Your task to perform on an android device: visit the assistant section in the google photos Image 0: 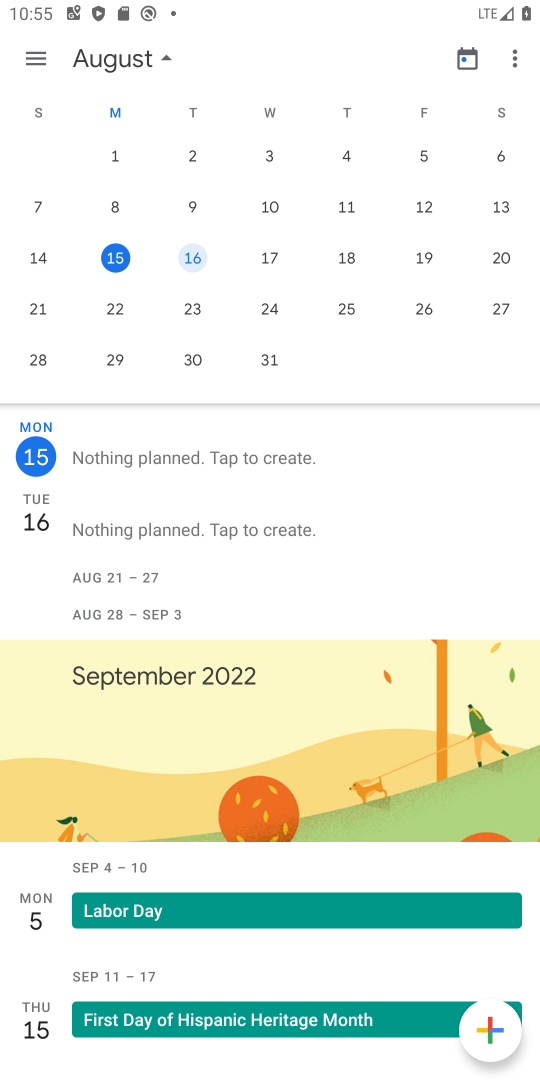
Step 0: press home button
Your task to perform on an android device: visit the assistant section in the google photos Image 1: 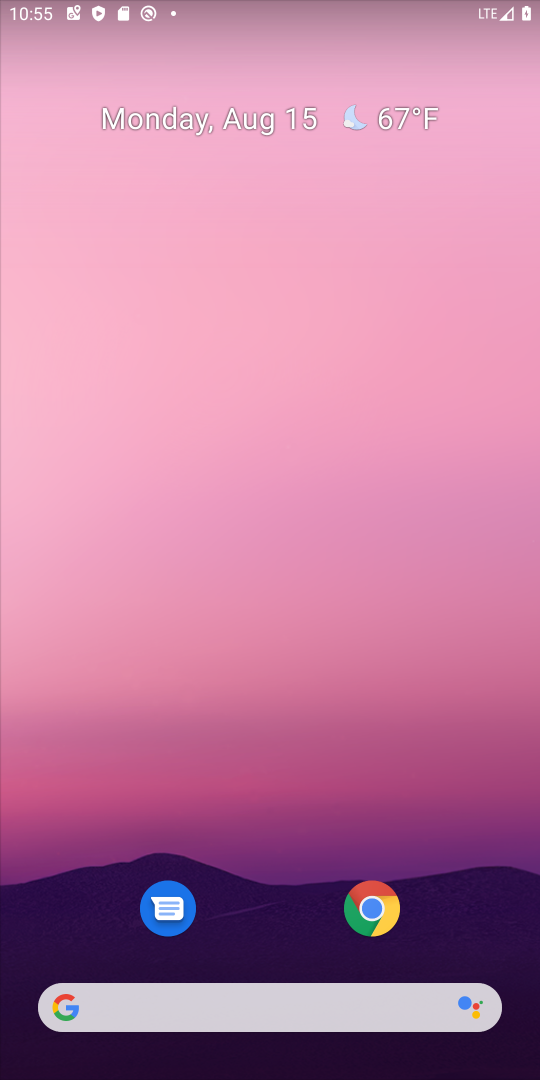
Step 1: drag from (279, 917) to (212, 69)
Your task to perform on an android device: visit the assistant section in the google photos Image 2: 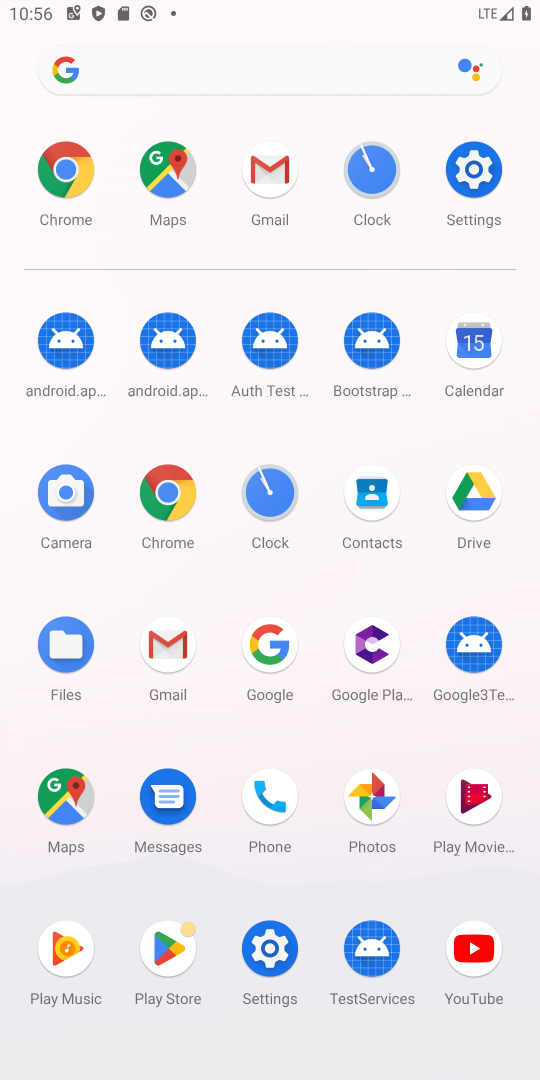
Step 2: click (371, 808)
Your task to perform on an android device: visit the assistant section in the google photos Image 3: 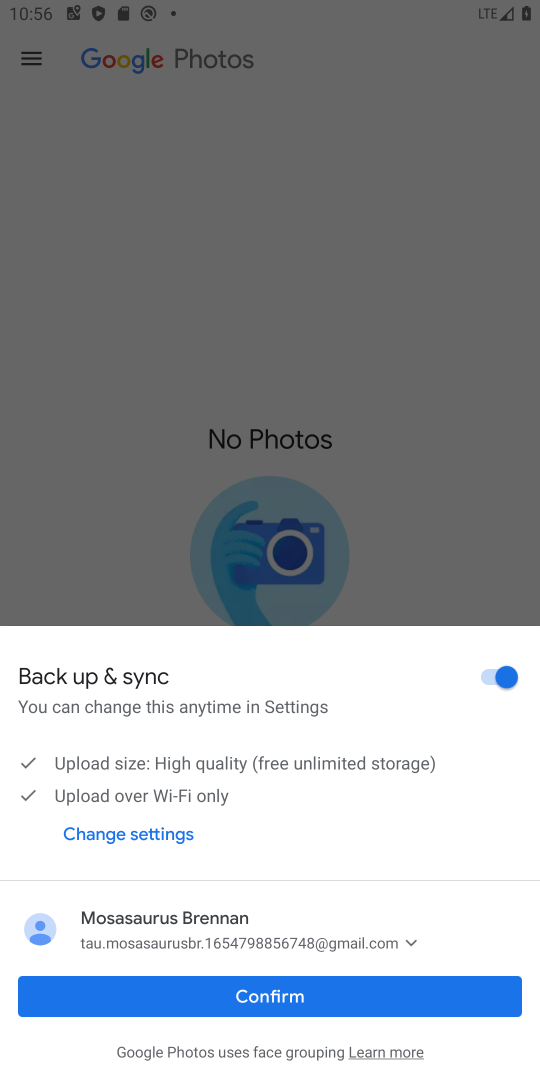
Step 3: click (338, 1004)
Your task to perform on an android device: visit the assistant section in the google photos Image 4: 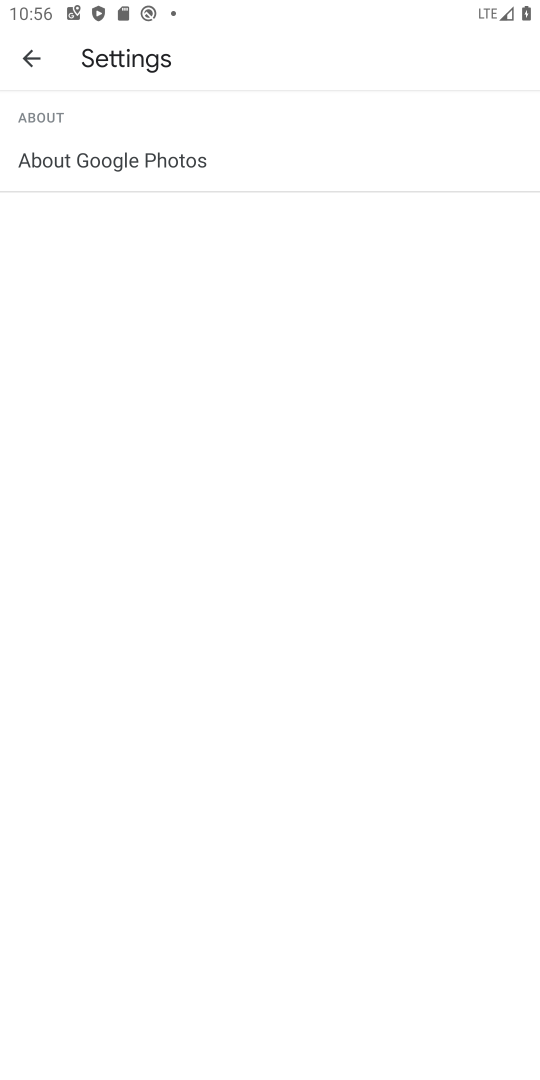
Step 4: click (23, 60)
Your task to perform on an android device: visit the assistant section in the google photos Image 5: 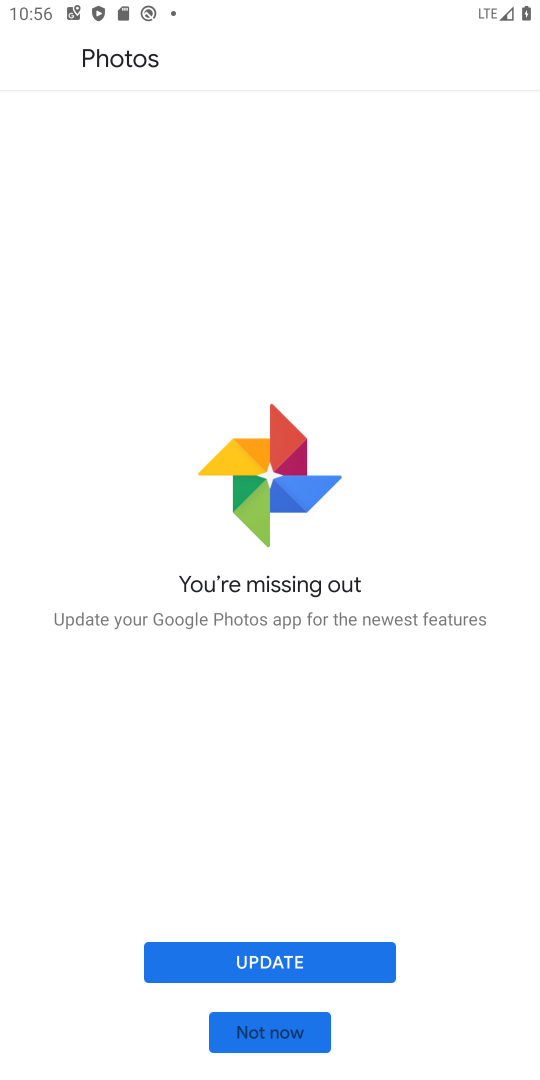
Step 5: click (278, 1043)
Your task to perform on an android device: visit the assistant section in the google photos Image 6: 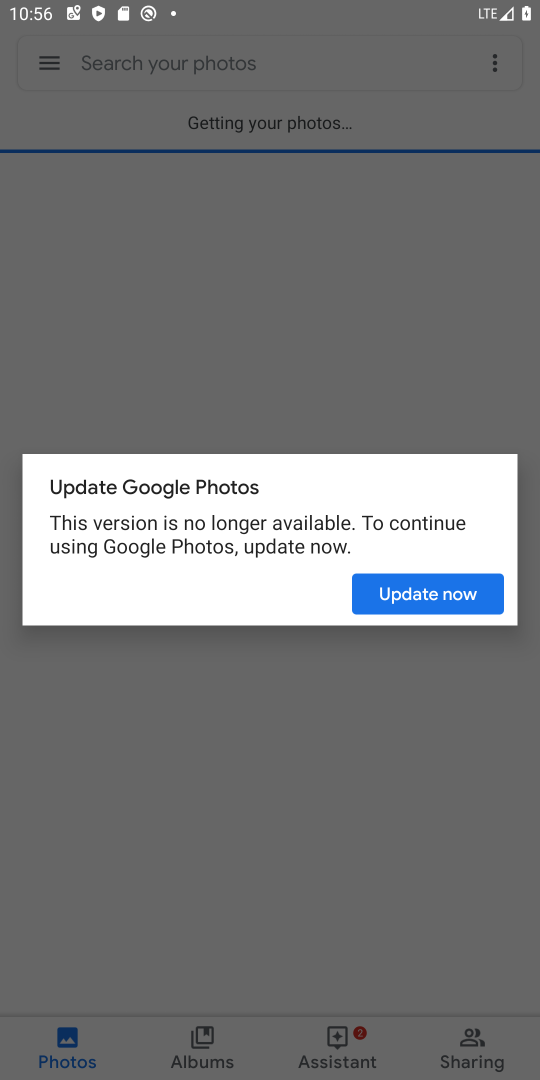
Step 6: click (449, 590)
Your task to perform on an android device: visit the assistant section in the google photos Image 7: 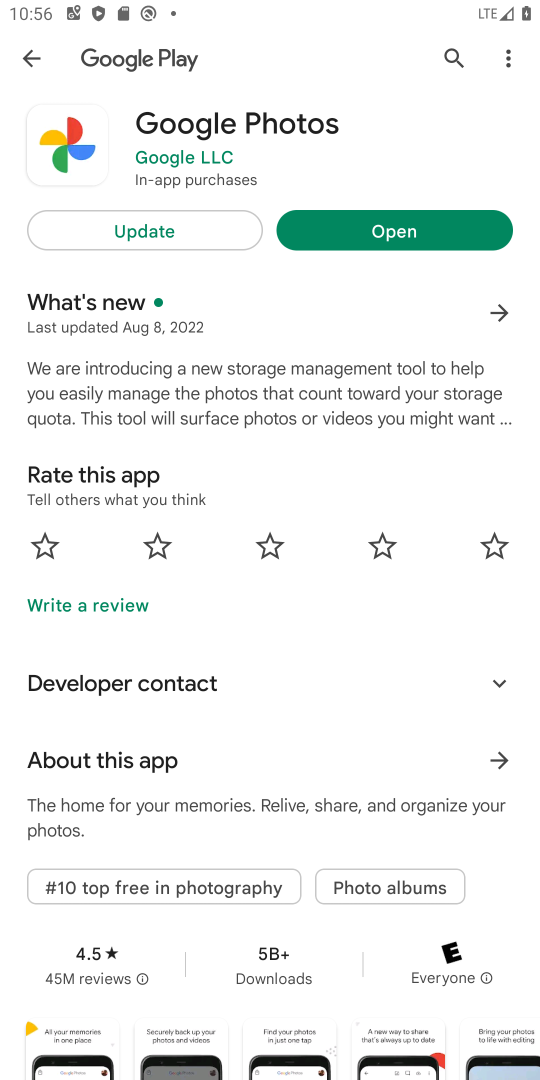
Step 7: click (360, 245)
Your task to perform on an android device: visit the assistant section in the google photos Image 8: 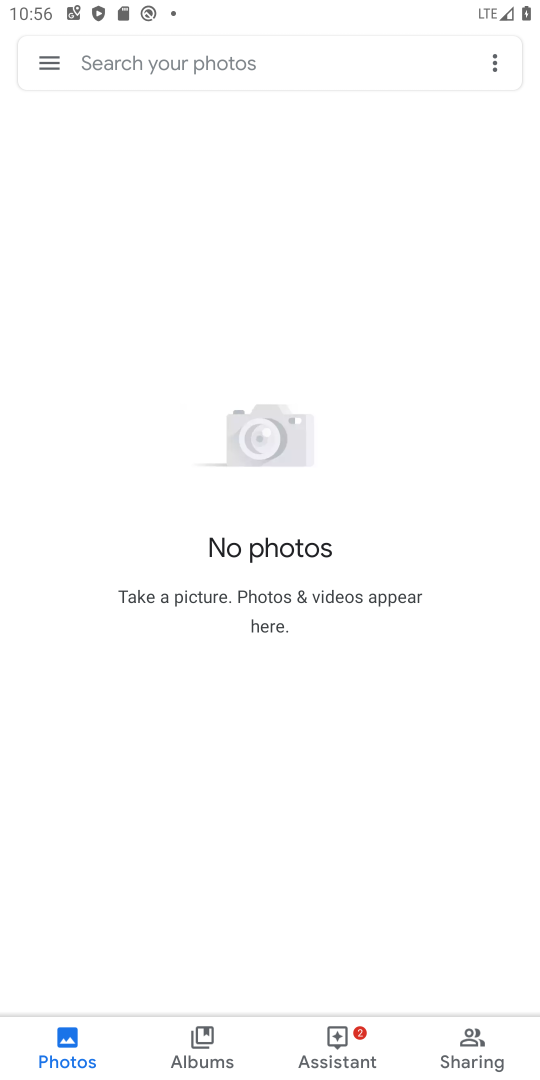
Step 8: click (331, 1042)
Your task to perform on an android device: visit the assistant section in the google photos Image 9: 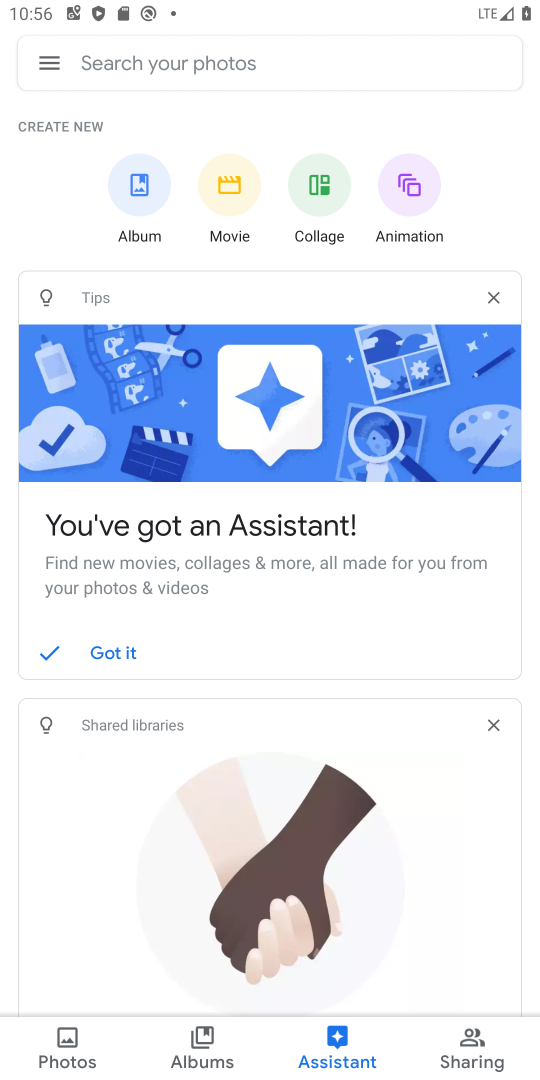
Step 9: task complete